Your task to perform on an android device: change the clock display to analog Image 0: 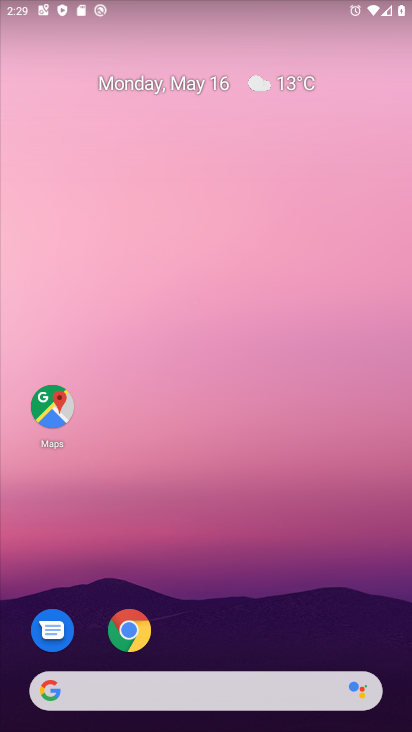
Step 0: drag from (290, 476) to (304, 94)
Your task to perform on an android device: change the clock display to analog Image 1: 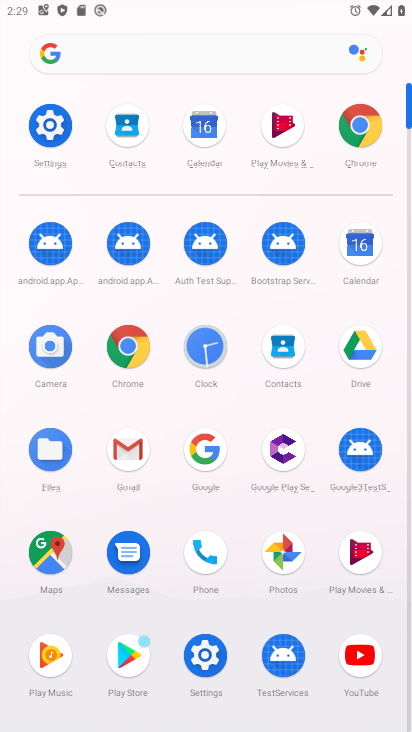
Step 1: click (199, 345)
Your task to perform on an android device: change the clock display to analog Image 2: 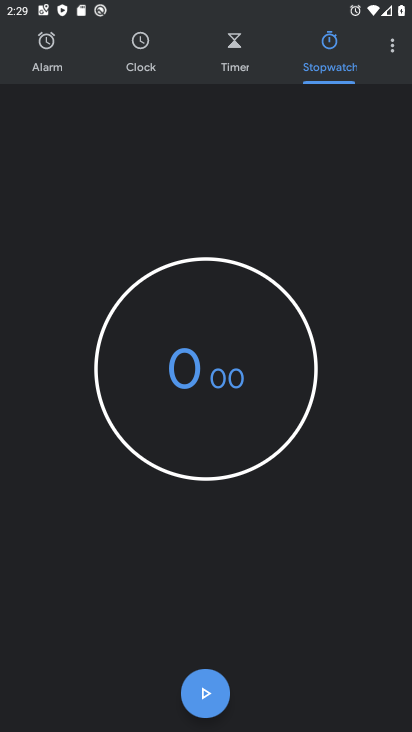
Step 2: click (396, 41)
Your task to perform on an android device: change the clock display to analog Image 3: 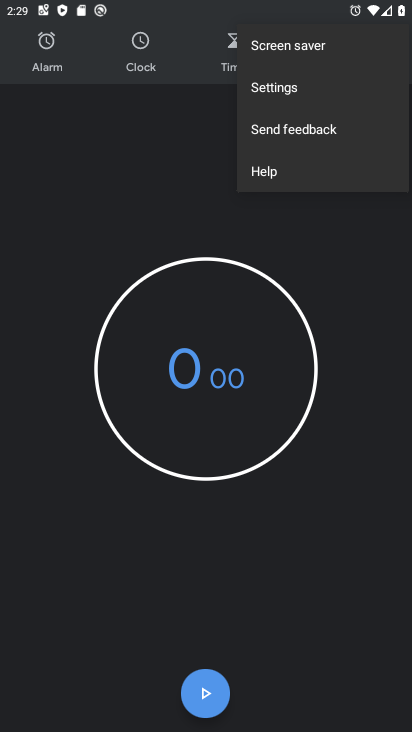
Step 3: click (306, 91)
Your task to perform on an android device: change the clock display to analog Image 4: 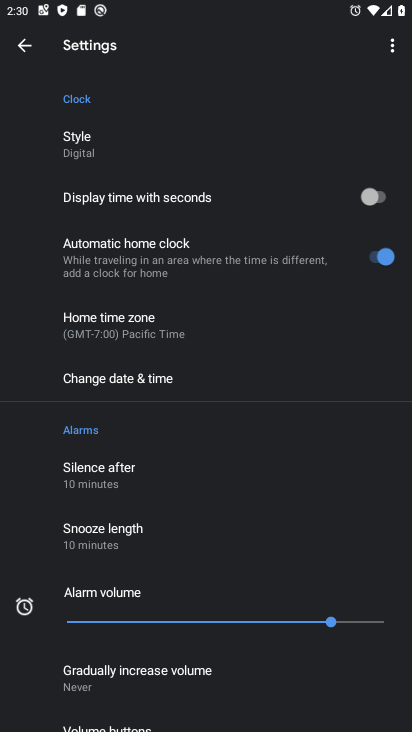
Step 4: click (98, 150)
Your task to perform on an android device: change the clock display to analog Image 5: 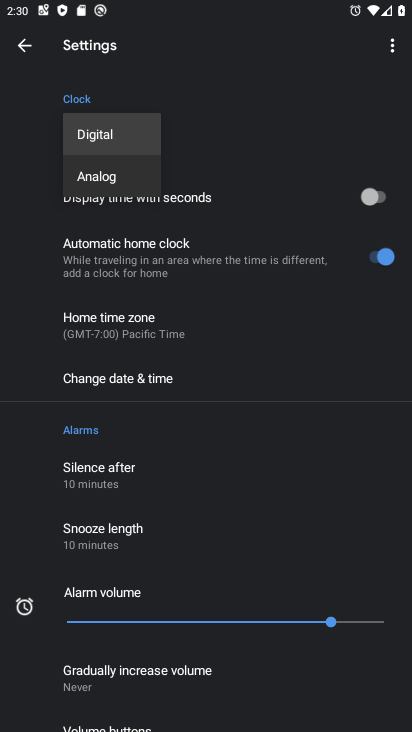
Step 5: click (121, 180)
Your task to perform on an android device: change the clock display to analog Image 6: 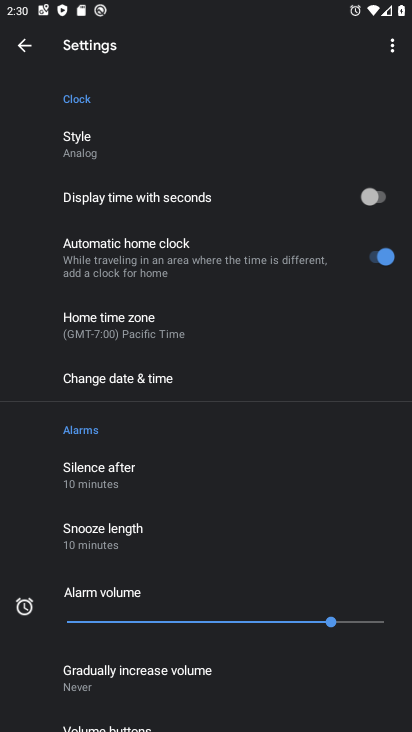
Step 6: task complete